Your task to perform on an android device: clear all cookies in the chrome app Image 0: 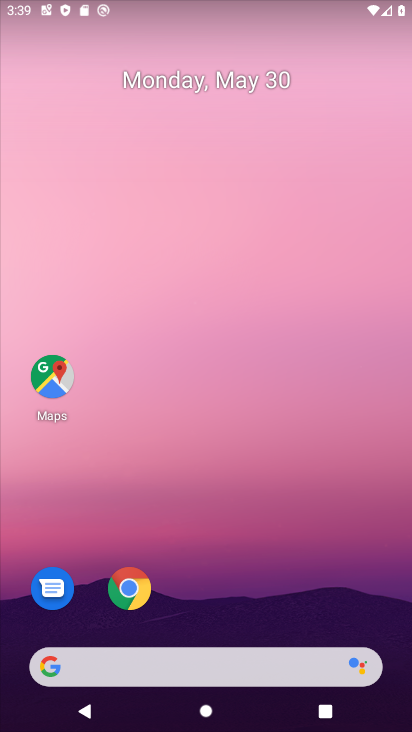
Step 0: drag from (253, 476) to (195, 20)
Your task to perform on an android device: clear all cookies in the chrome app Image 1: 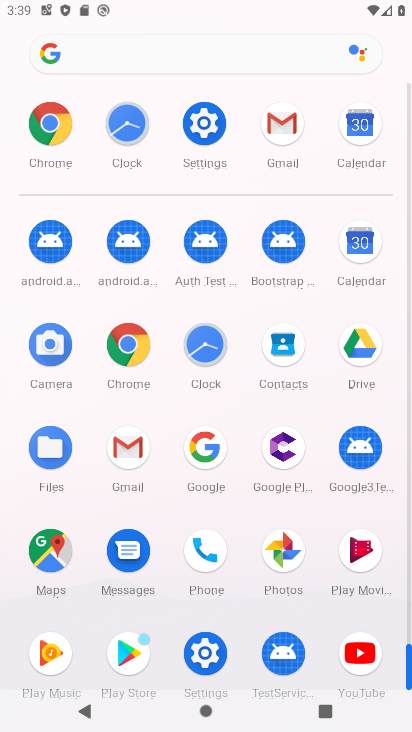
Step 1: drag from (15, 561) to (15, 260)
Your task to perform on an android device: clear all cookies in the chrome app Image 2: 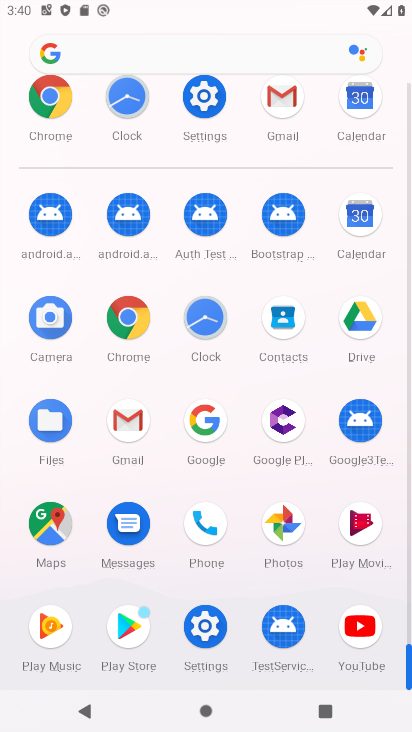
Step 2: click (131, 318)
Your task to perform on an android device: clear all cookies in the chrome app Image 3: 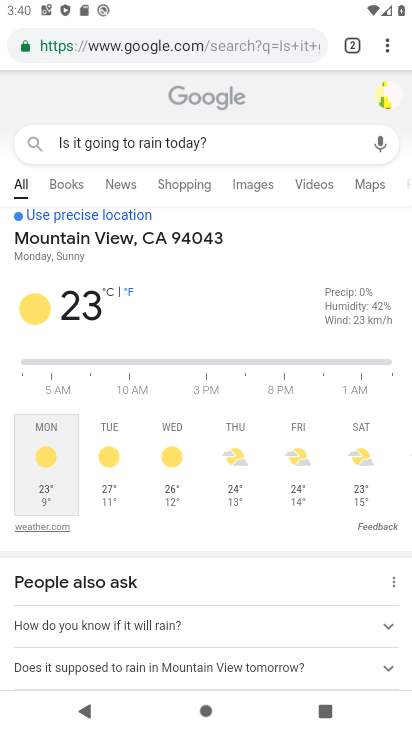
Step 3: click (157, 47)
Your task to perform on an android device: clear all cookies in the chrome app Image 4: 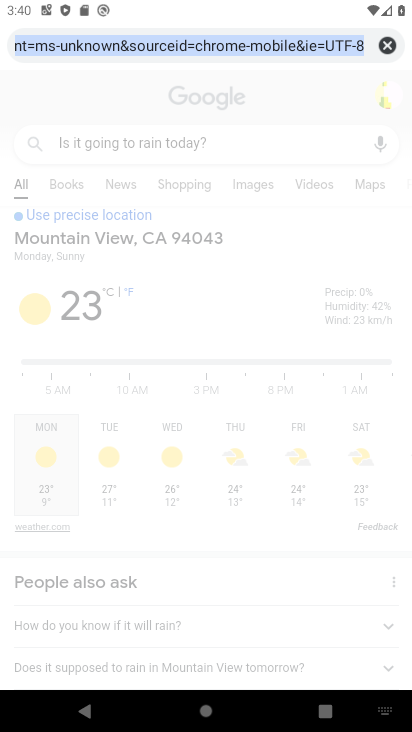
Step 4: click (382, 40)
Your task to perform on an android device: clear all cookies in the chrome app Image 5: 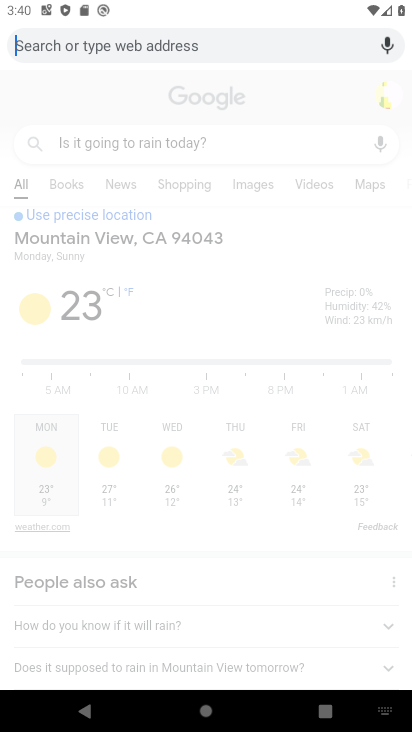
Step 5: press back button
Your task to perform on an android device: clear all cookies in the chrome app Image 6: 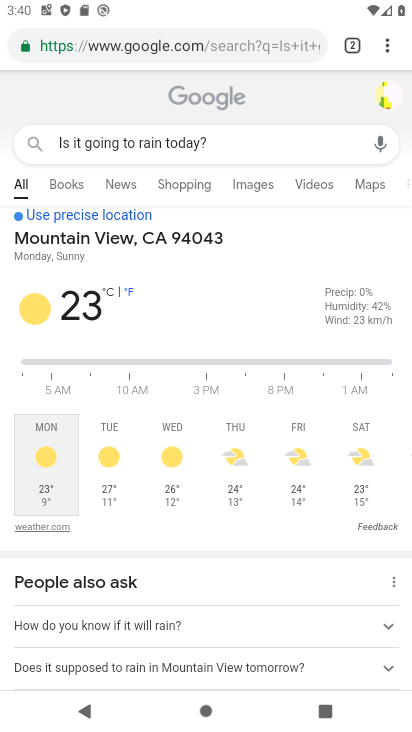
Step 6: drag from (389, 43) to (226, 499)
Your task to perform on an android device: clear all cookies in the chrome app Image 7: 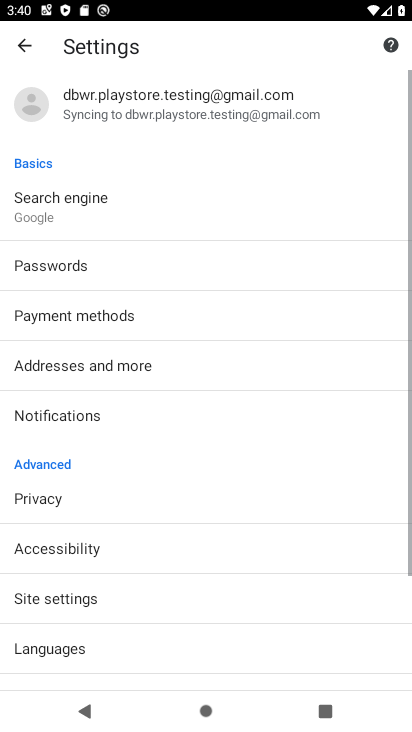
Step 7: drag from (253, 583) to (247, 215)
Your task to perform on an android device: clear all cookies in the chrome app Image 8: 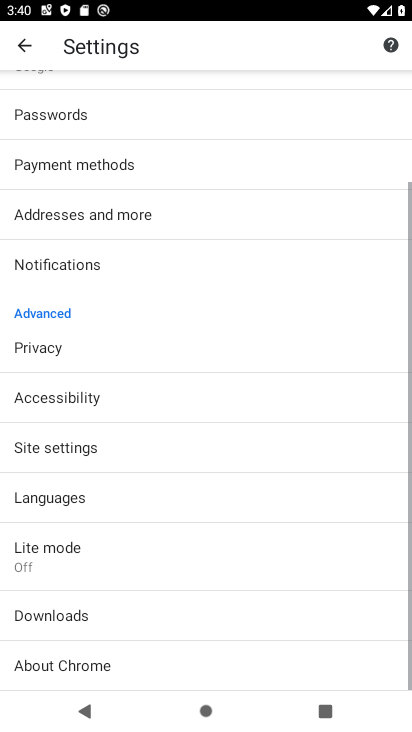
Step 8: click (109, 346)
Your task to perform on an android device: clear all cookies in the chrome app Image 9: 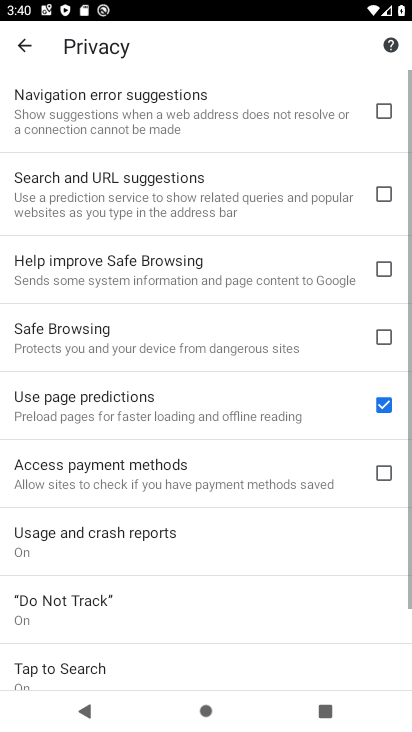
Step 9: drag from (184, 657) to (190, 213)
Your task to perform on an android device: clear all cookies in the chrome app Image 10: 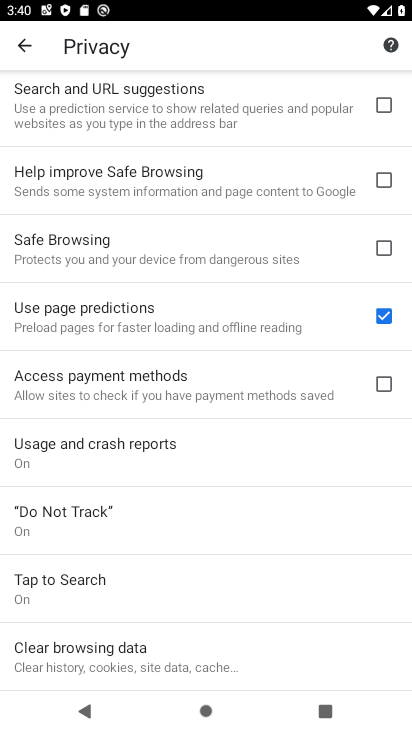
Step 10: click (116, 655)
Your task to perform on an android device: clear all cookies in the chrome app Image 11: 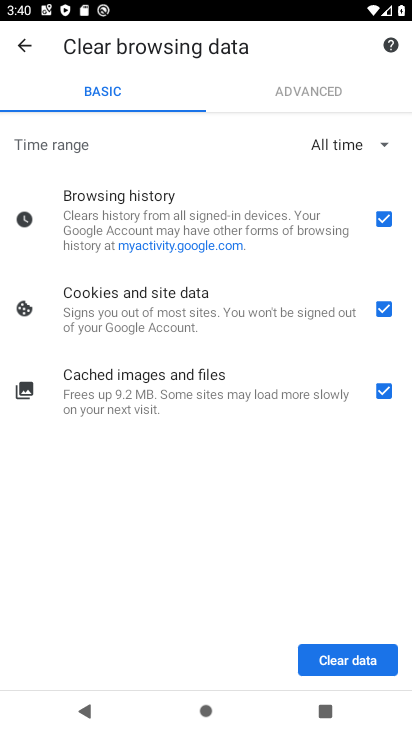
Step 11: click (325, 659)
Your task to perform on an android device: clear all cookies in the chrome app Image 12: 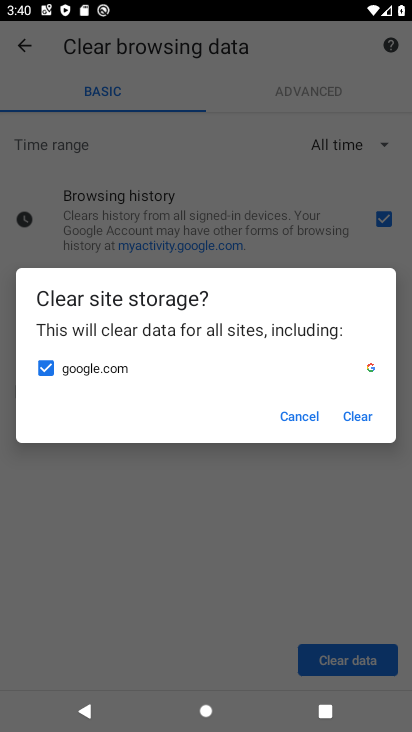
Step 12: click (361, 412)
Your task to perform on an android device: clear all cookies in the chrome app Image 13: 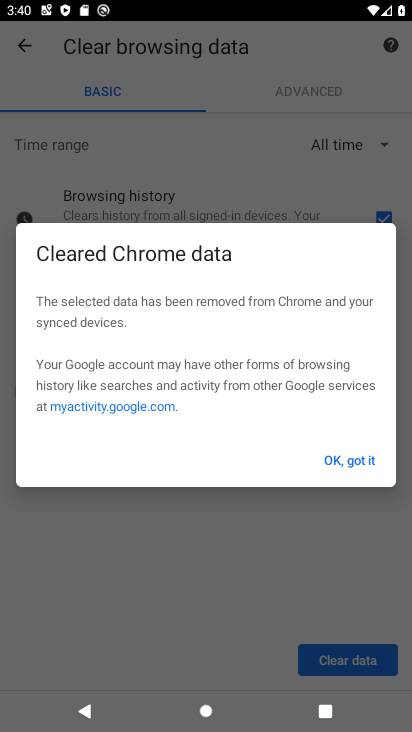
Step 13: click (353, 462)
Your task to perform on an android device: clear all cookies in the chrome app Image 14: 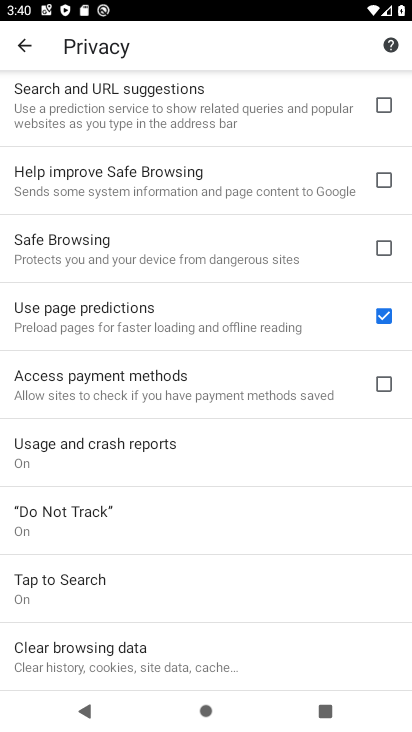
Step 14: task complete